Your task to perform on an android device: set the stopwatch Image 0: 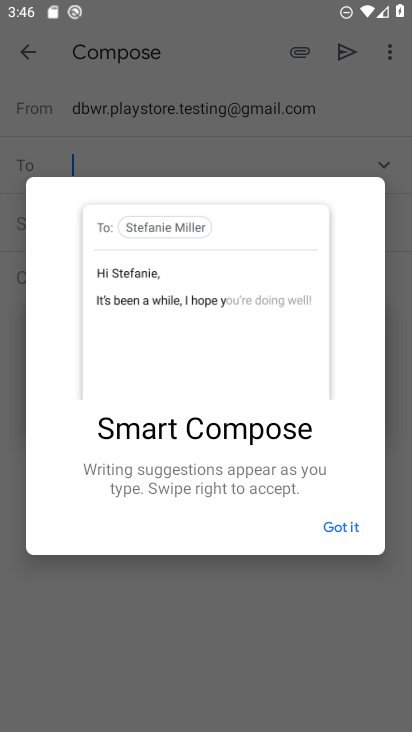
Step 0: press home button
Your task to perform on an android device: set the stopwatch Image 1: 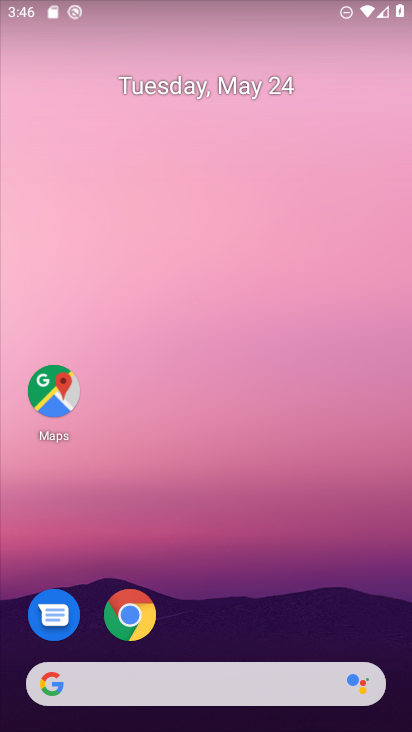
Step 1: drag from (224, 604) to (258, 163)
Your task to perform on an android device: set the stopwatch Image 2: 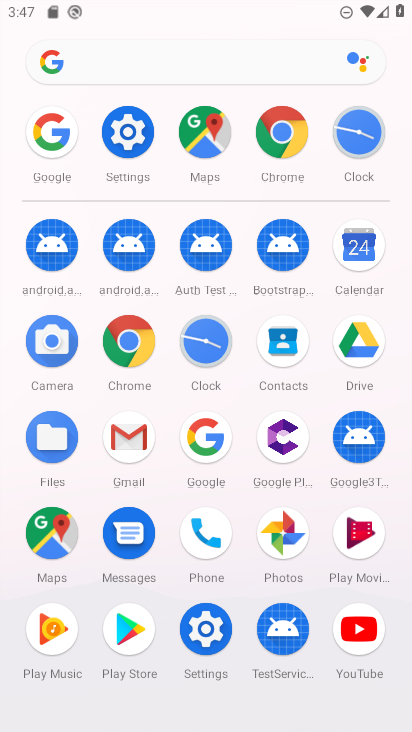
Step 2: click (213, 352)
Your task to perform on an android device: set the stopwatch Image 3: 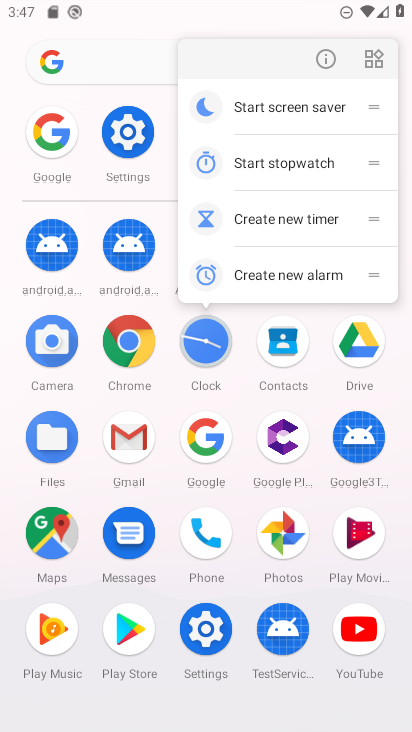
Step 3: click (213, 352)
Your task to perform on an android device: set the stopwatch Image 4: 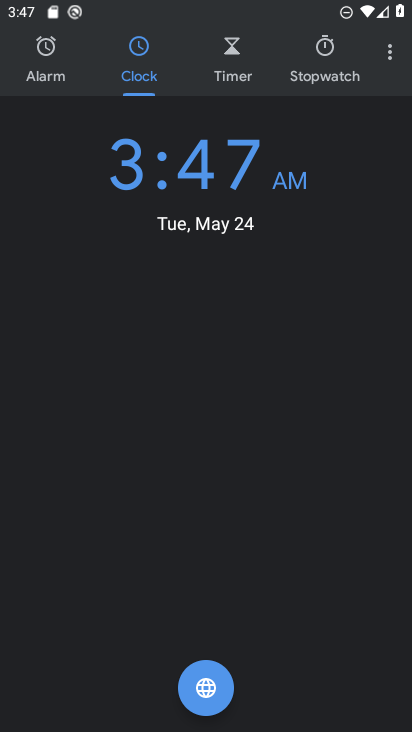
Step 4: click (330, 71)
Your task to perform on an android device: set the stopwatch Image 5: 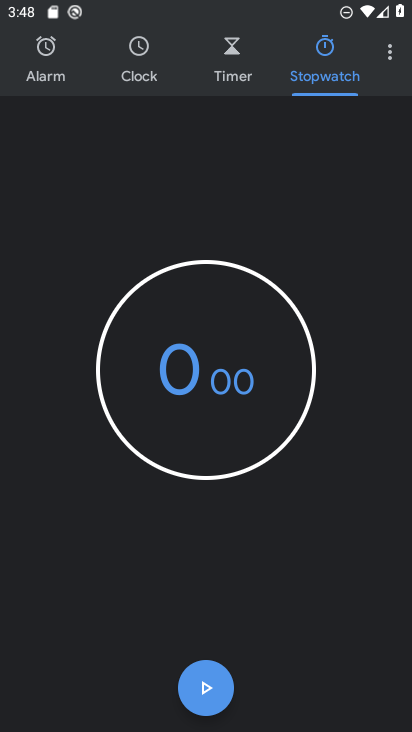
Step 5: click (212, 694)
Your task to perform on an android device: set the stopwatch Image 6: 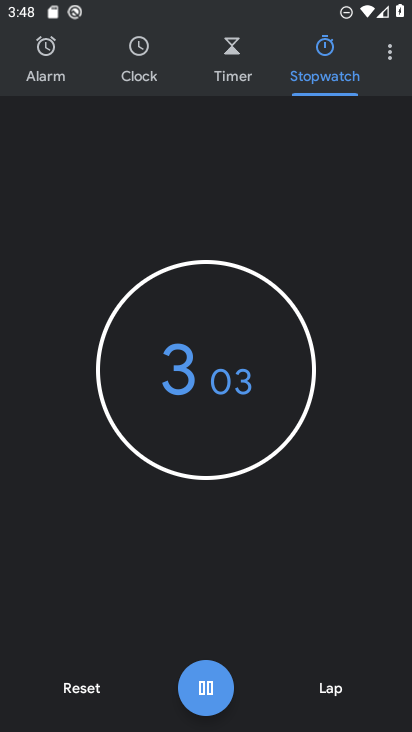
Step 6: task complete